Your task to perform on an android device: show emergency info Image 0: 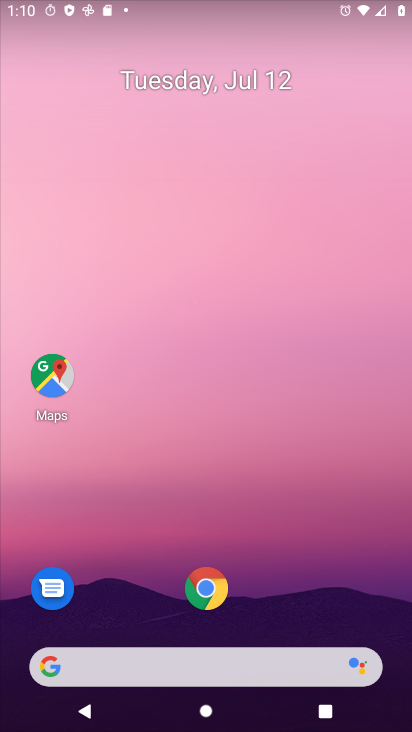
Step 0: drag from (243, 653) to (337, 80)
Your task to perform on an android device: show emergency info Image 1: 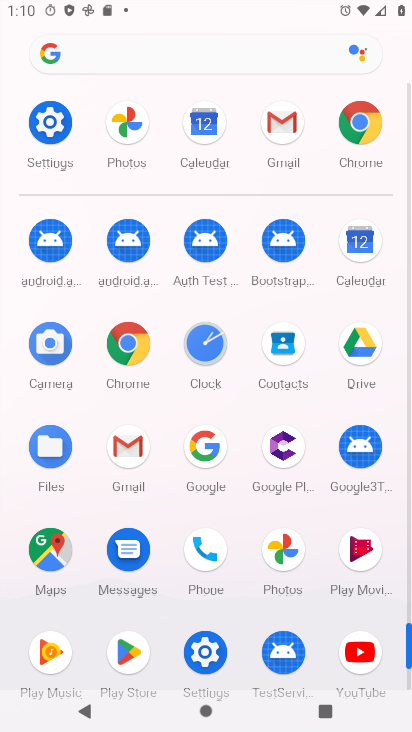
Step 1: click (45, 123)
Your task to perform on an android device: show emergency info Image 2: 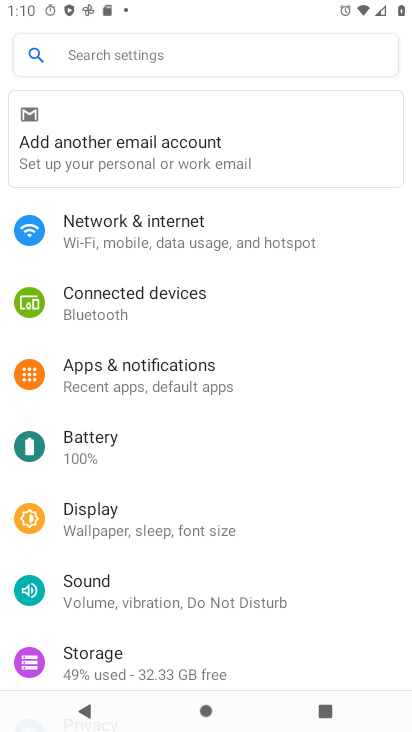
Step 2: drag from (194, 649) to (294, 99)
Your task to perform on an android device: show emergency info Image 3: 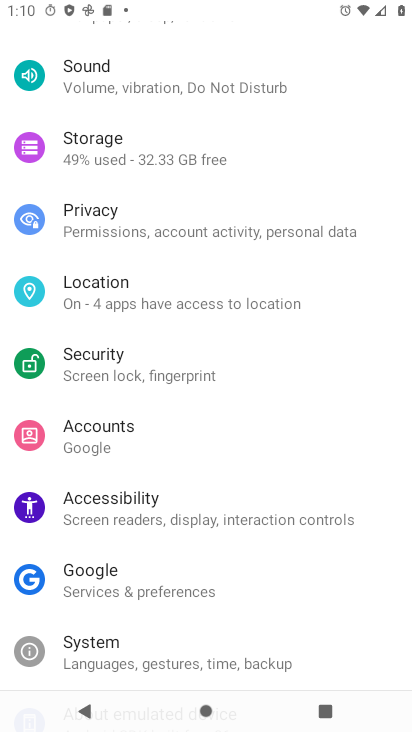
Step 3: drag from (146, 641) to (243, 120)
Your task to perform on an android device: show emergency info Image 4: 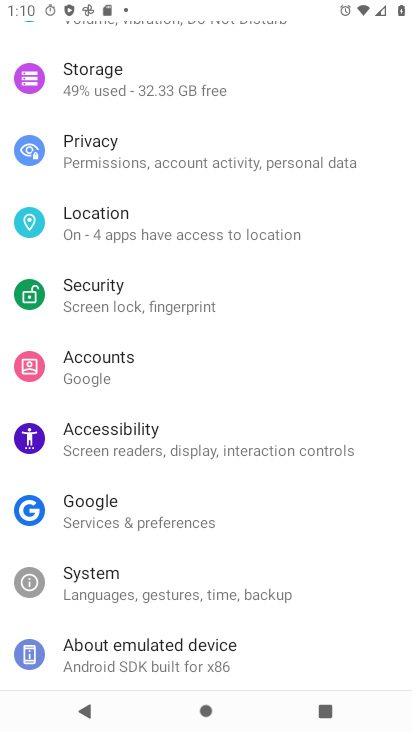
Step 4: click (141, 654)
Your task to perform on an android device: show emergency info Image 5: 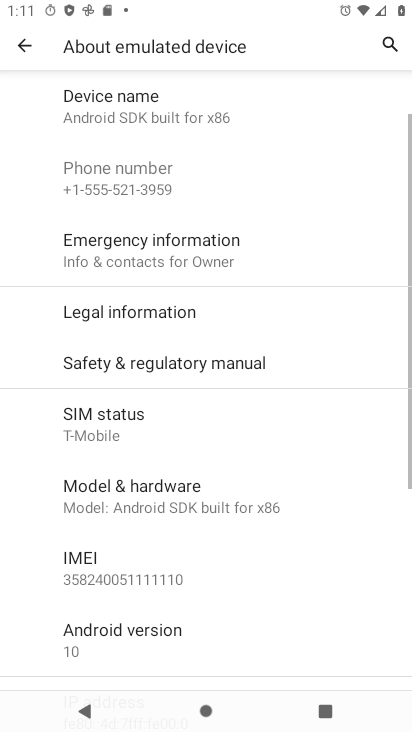
Step 5: click (141, 251)
Your task to perform on an android device: show emergency info Image 6: 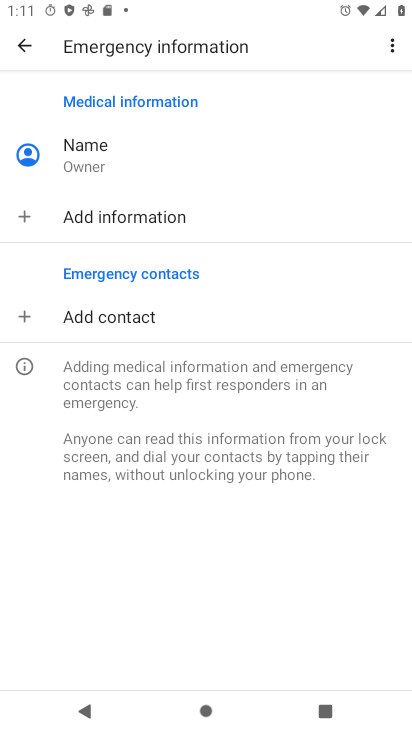
Step 6: task complete